Your task to perform on an android device: install app "ZOOM Cloud Meetings" Image 0: 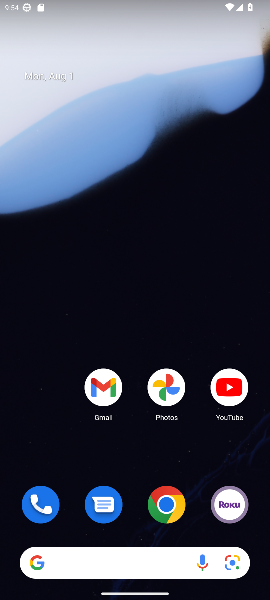
Step 0: drag from (72, 455) to (121, 83)
Your task to perform on an android device: install app "ZOOM Cloud Meetings" Image 1: 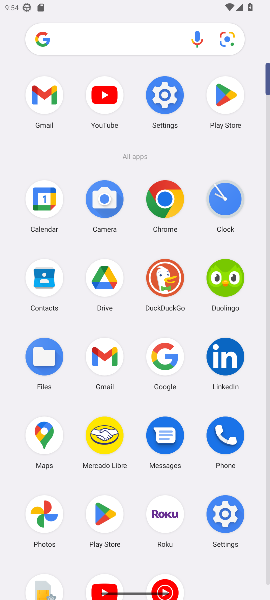
Step 1: click (218, 94)
Your task to perform on an android device: install app "ZOOM Cloud Meetings" Image 2: 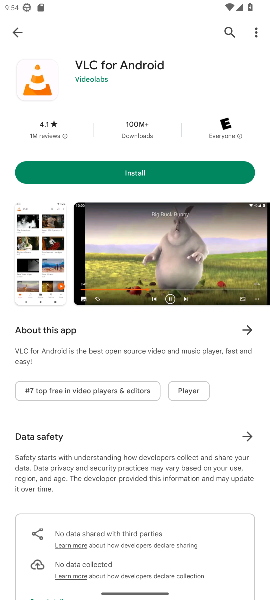
Step 2: click (226, 28)
Your task to perform on an android device: install app "ZOOM Cloud Meetings" Image 3: 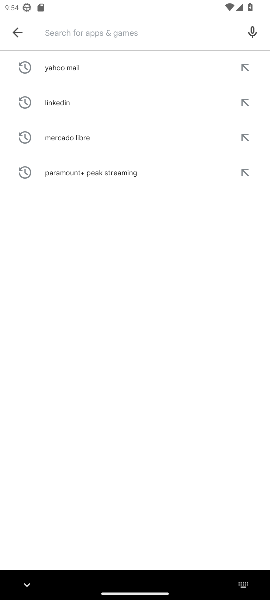
Step 3: type "zoom cloud meeting"
Your task to perform on an android device: install app "ZOOM Cloud Meetings" Image 4: 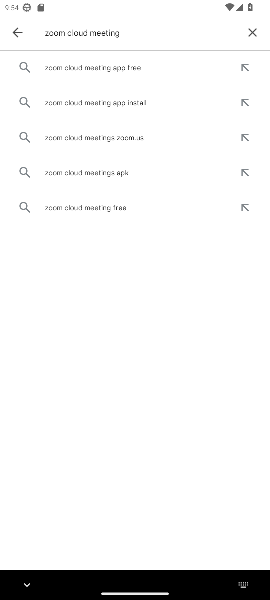
Step 4: click (137, 70)
Your task to perform on an android device: install app "ZOOM Cloud Meetings" Image 5: 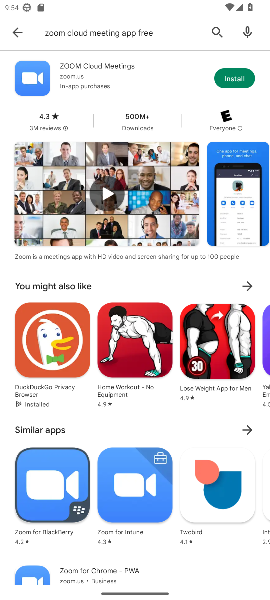
Step 5: click (123, 72)
Your task to perform on an android device: install app "ZOOM Cloud Meetings" Image 6: 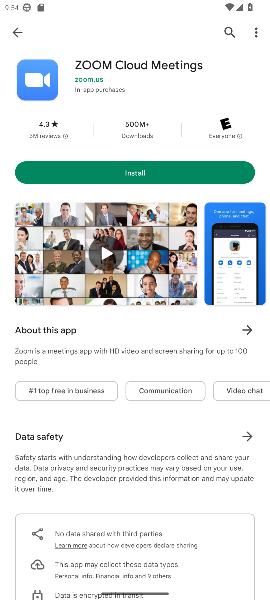
Step 6: click (114, 166)
Your task to perform on an android device: install app "ZOOM Cloud Meetings" Image 7: 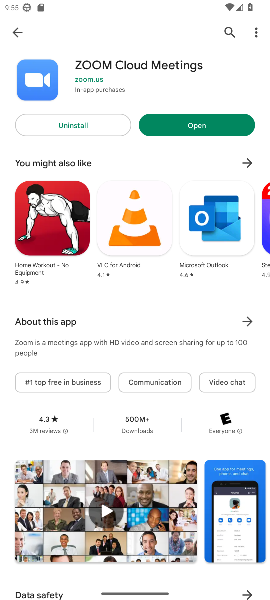
Step 7: task complete